Your task to perform on an android device: Open Chrome and go to the settings page Image 0: 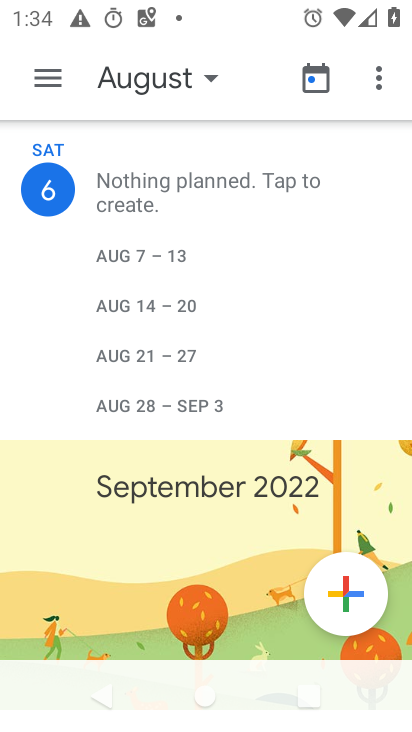
Step 0: press back button
Your task to perform on an android device: Open Chrome and go to the settings page Image 1: 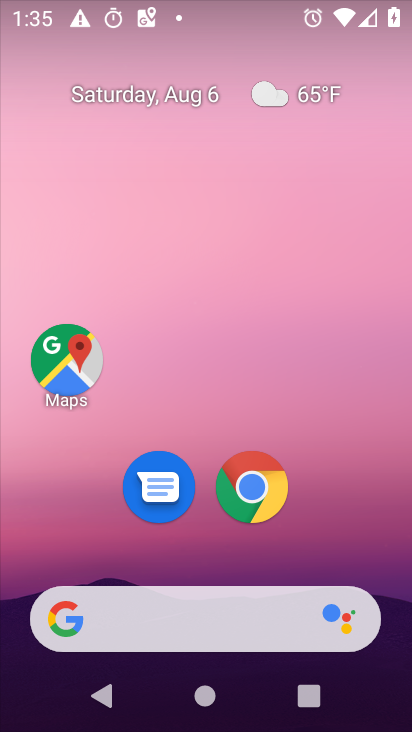
Step 1: click (265, 483)
Your task to perform on an android device: Open Chrome and go to the settings page Image 2: 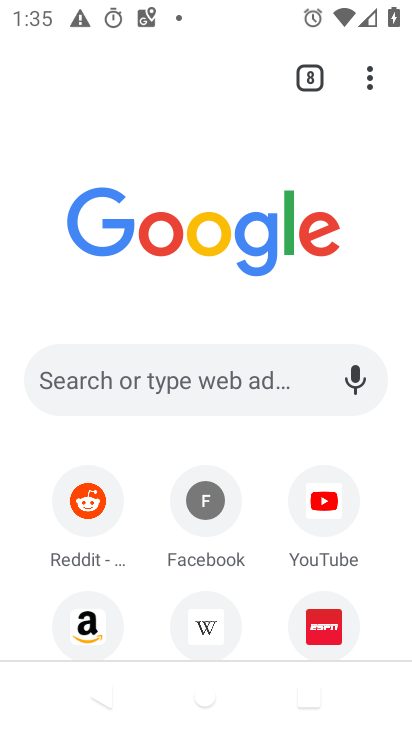
Step 2: task complete